Your task to perform on an android device: Empty the shopping cart on amazon. Search for "usb-b" on amazon, select the first entry, and add it to the cart. Image 0: 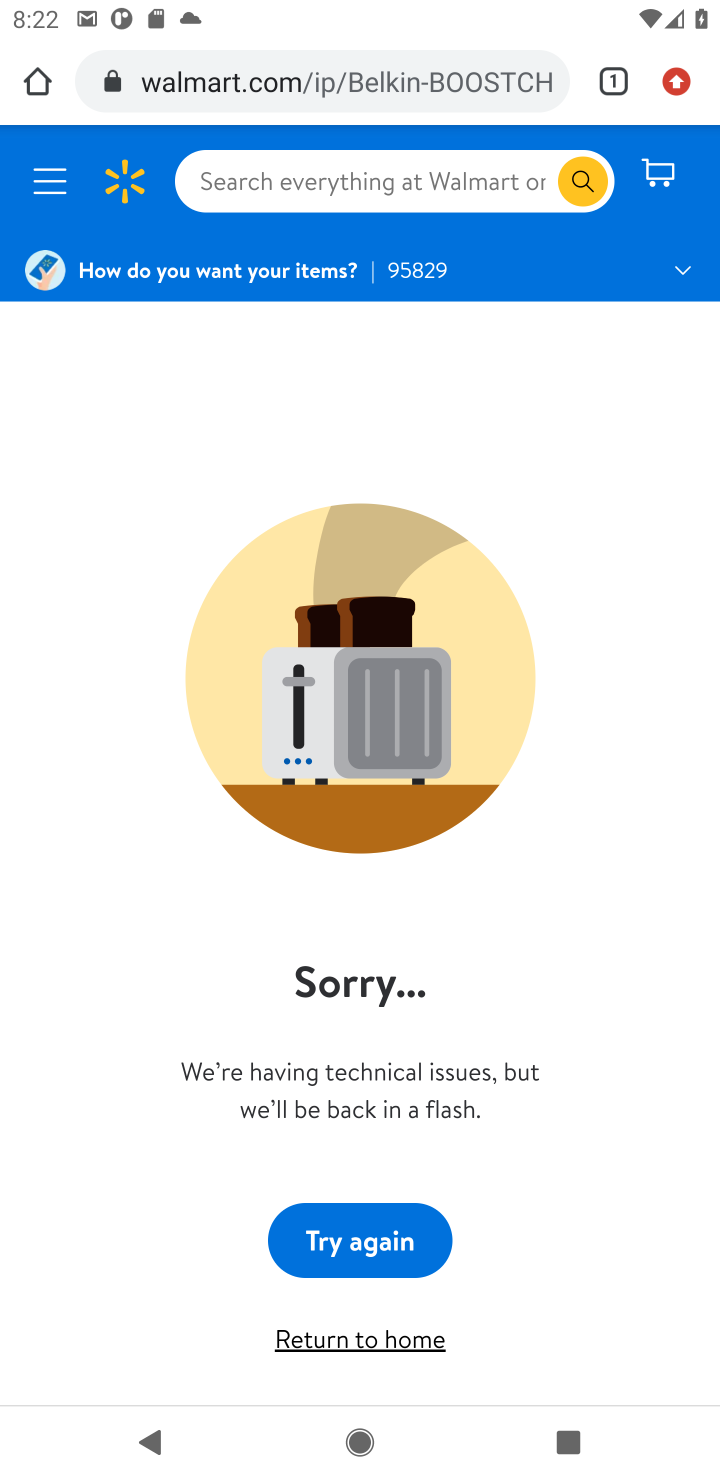
Step 0: click (474, 73)
Your task to perform on an android device: Empty the shopping cart on amazon. Search for "usb-b" on amazon, select the first entry, and add it to the cart. Image 1: 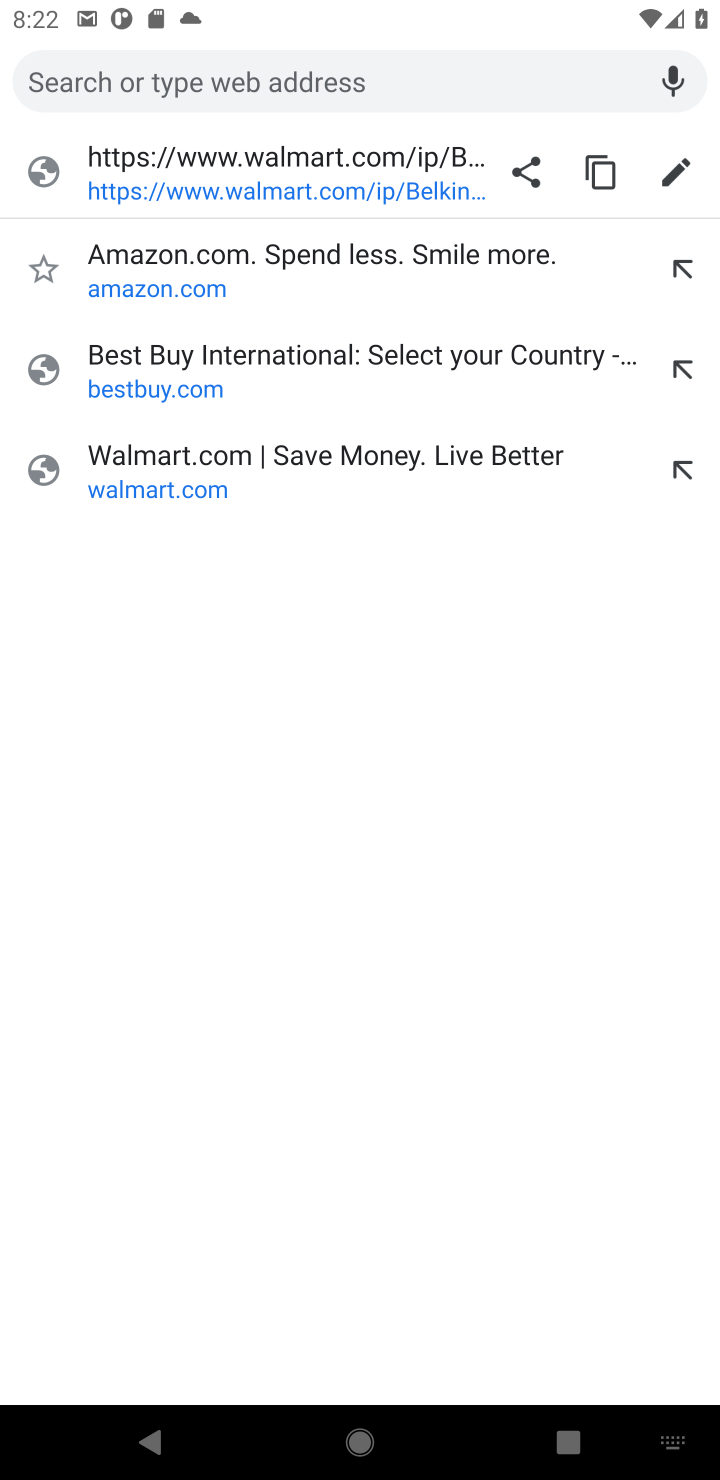
Step 1: type "amazon"
Your task to perform on an android device: Empty the shopping cart on amazon. Search for "usb-b" on amazon, select the first entry, and add it to the cart. Image 2: 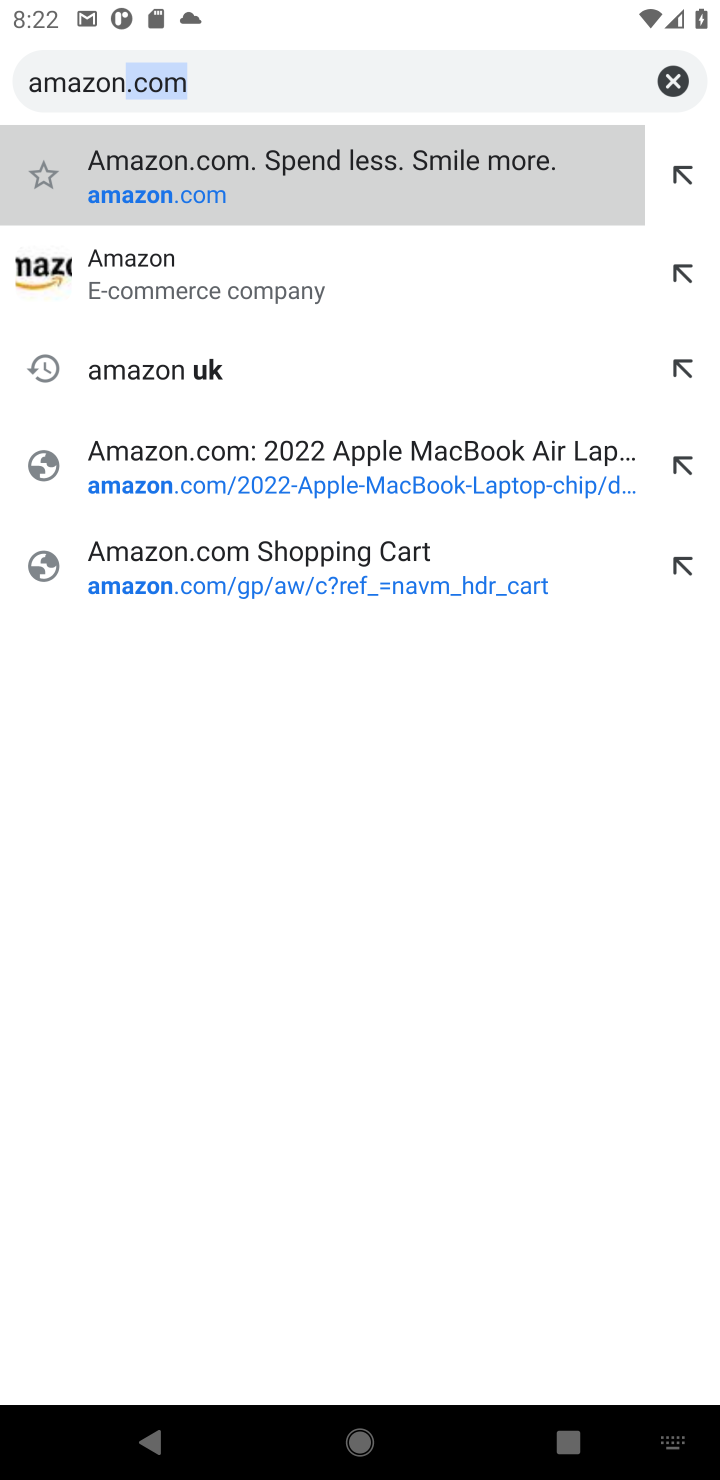
Step 2: click (126, 170)
Your task to perform on an android device: Empty the shopping cart on amazon. Search for "usb-b" on amazon, select the first entry, and add it to the cart. Image 3: 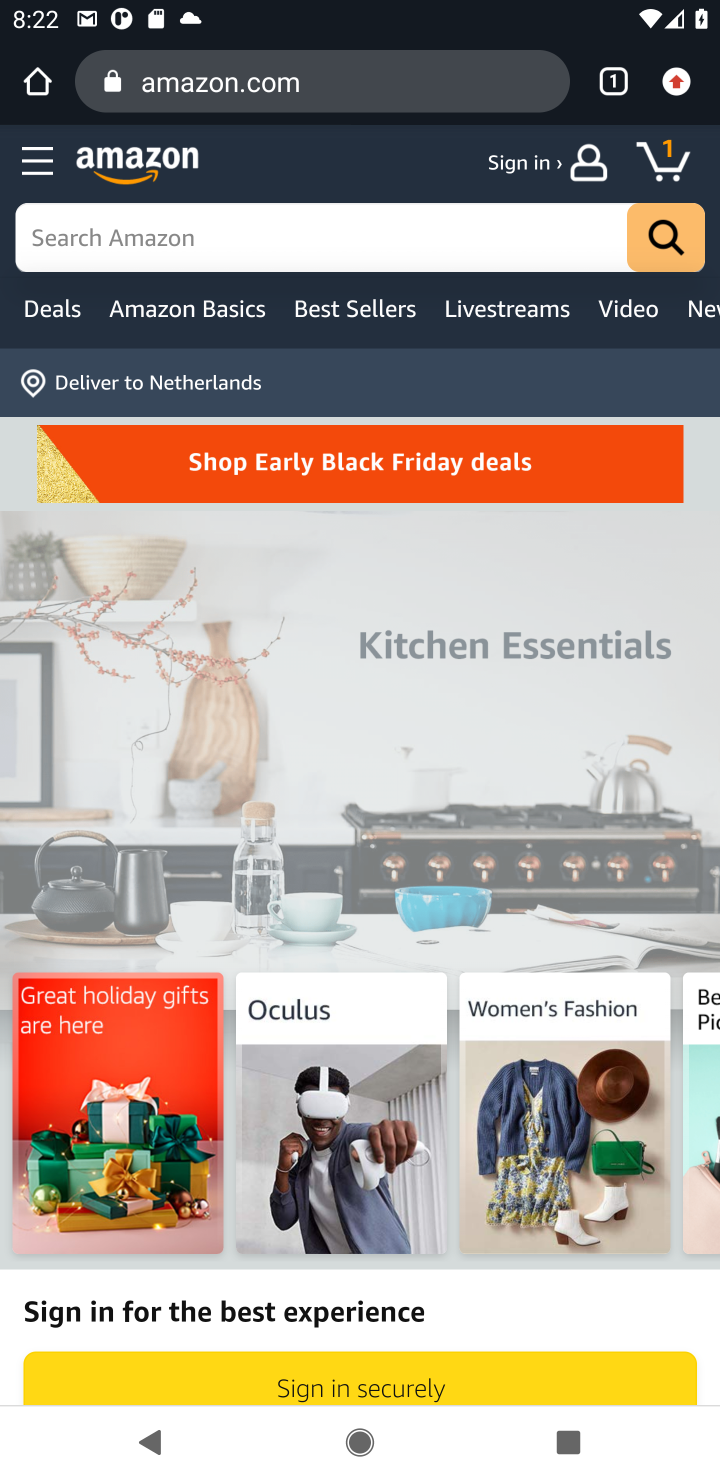
Step 3: click (675, 144)
Your task to perform on an android device: Empty the shopping cart on amazon. Search for "usb-b" on amazon, select the first entry, and add it to the cart. Image 4: 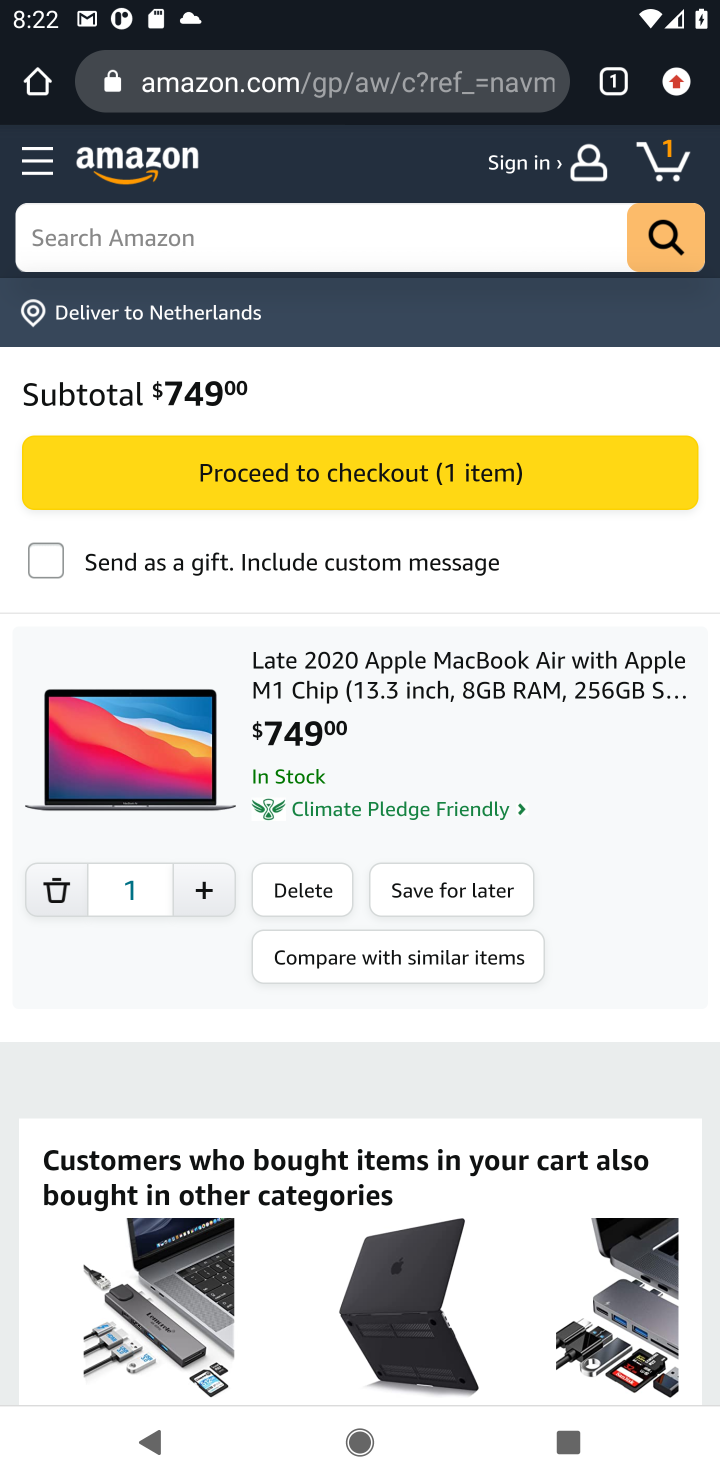
Step 4: click (290, 891)
Your task to perform on an android device: Empty the shopping cart on amazon. Search for "usb-b" on amazon, select the first entry, and add it to the cart. Image 5: 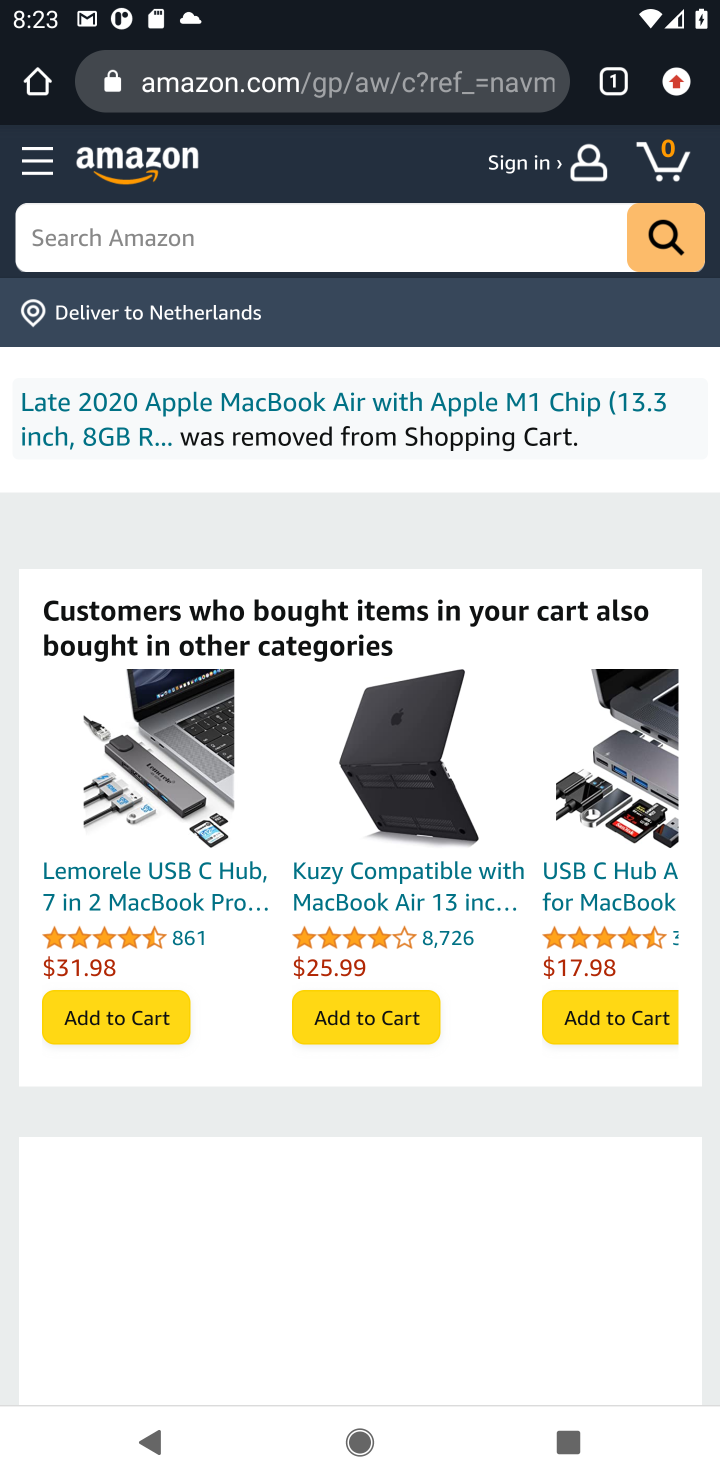
Step 5: click (544, 250)
Your task to perform on an android device: Empty the shopping cart on amazon. Search for "usb-b" on amazon, select the first entry, and add it to the cart. Image 6: 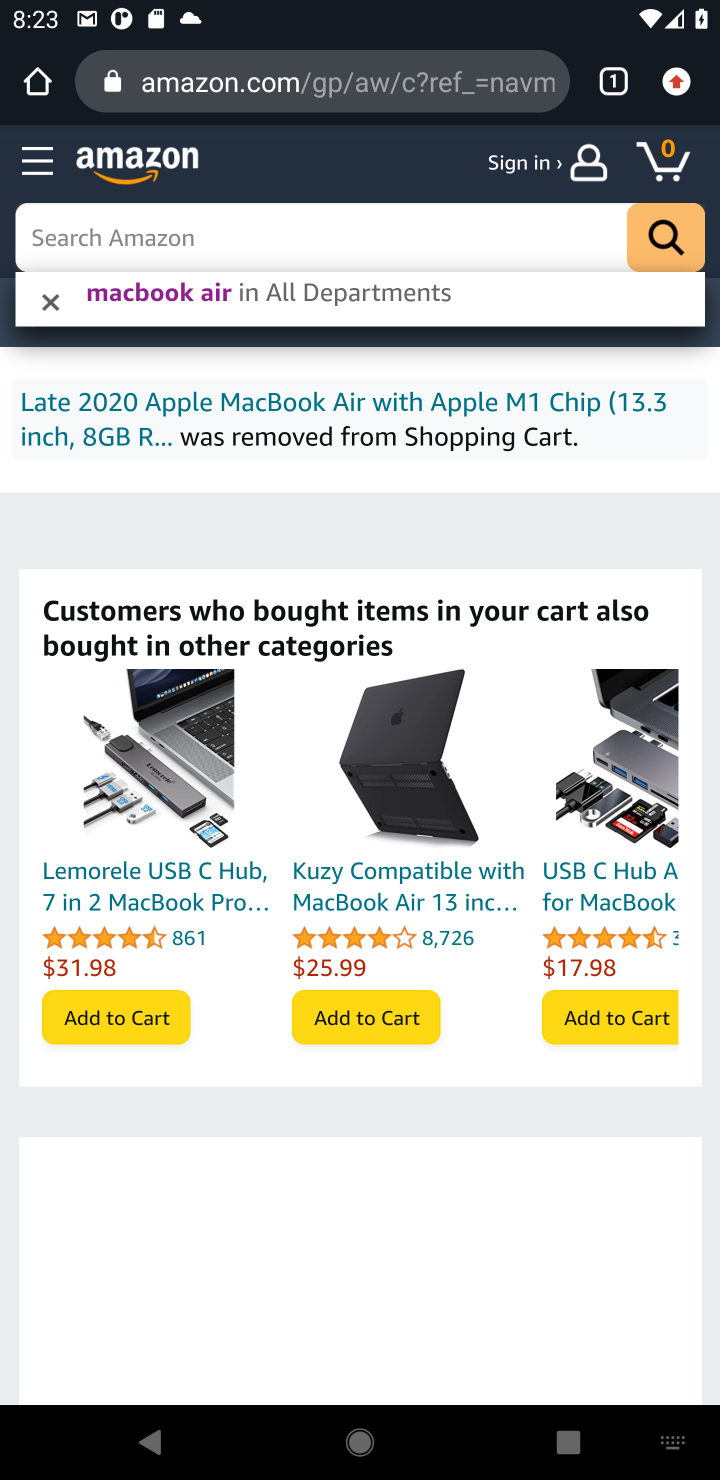
Step 6: type "usb-b"
Your task to perform on an android device: Empty the shopping cart on amazon. Search for "usb-b" on amazon, select the first entry, and add it to the cart. Image 7: 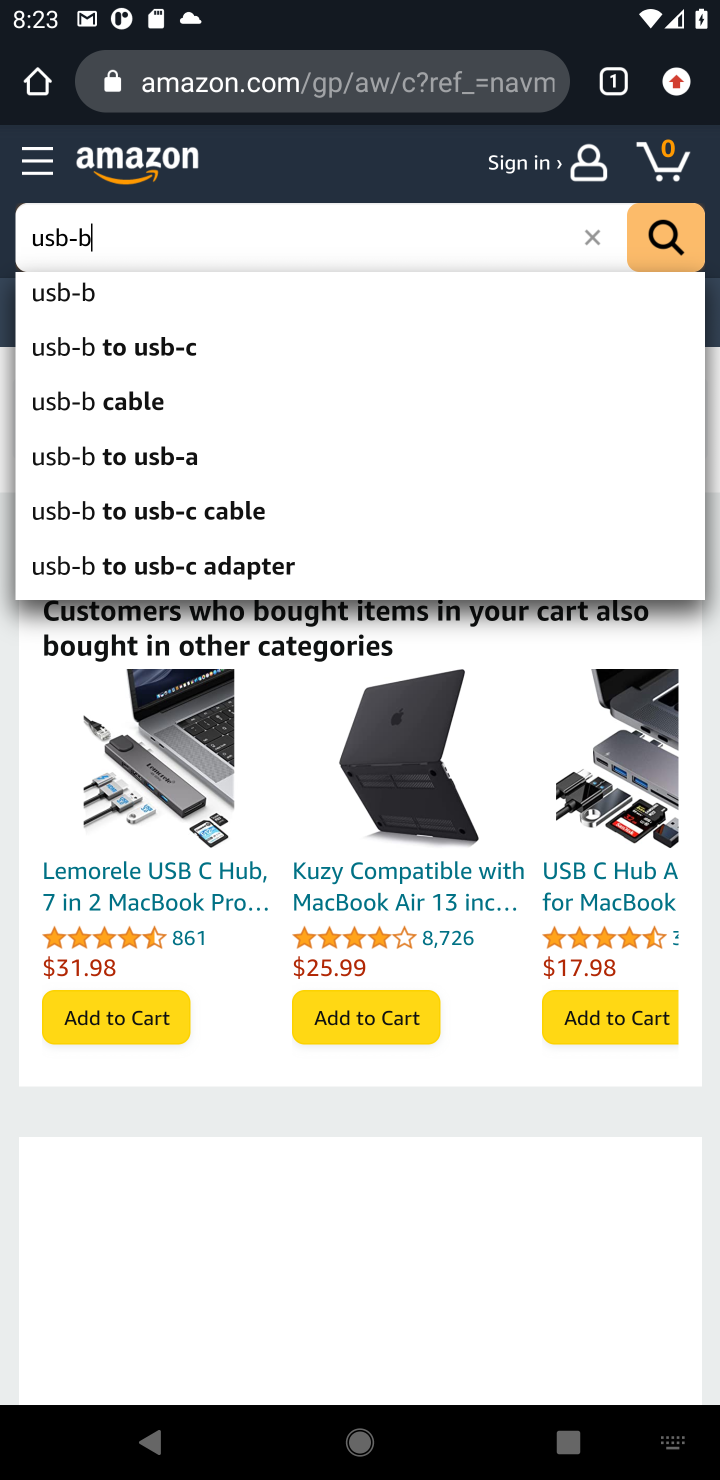
Step 7: click (680, 252)
Your task to perform on an android device: Empty the shopping cart on amazon. Search for "usb-b" on amazon, select the first entry, and add it to the cart. Image 8: 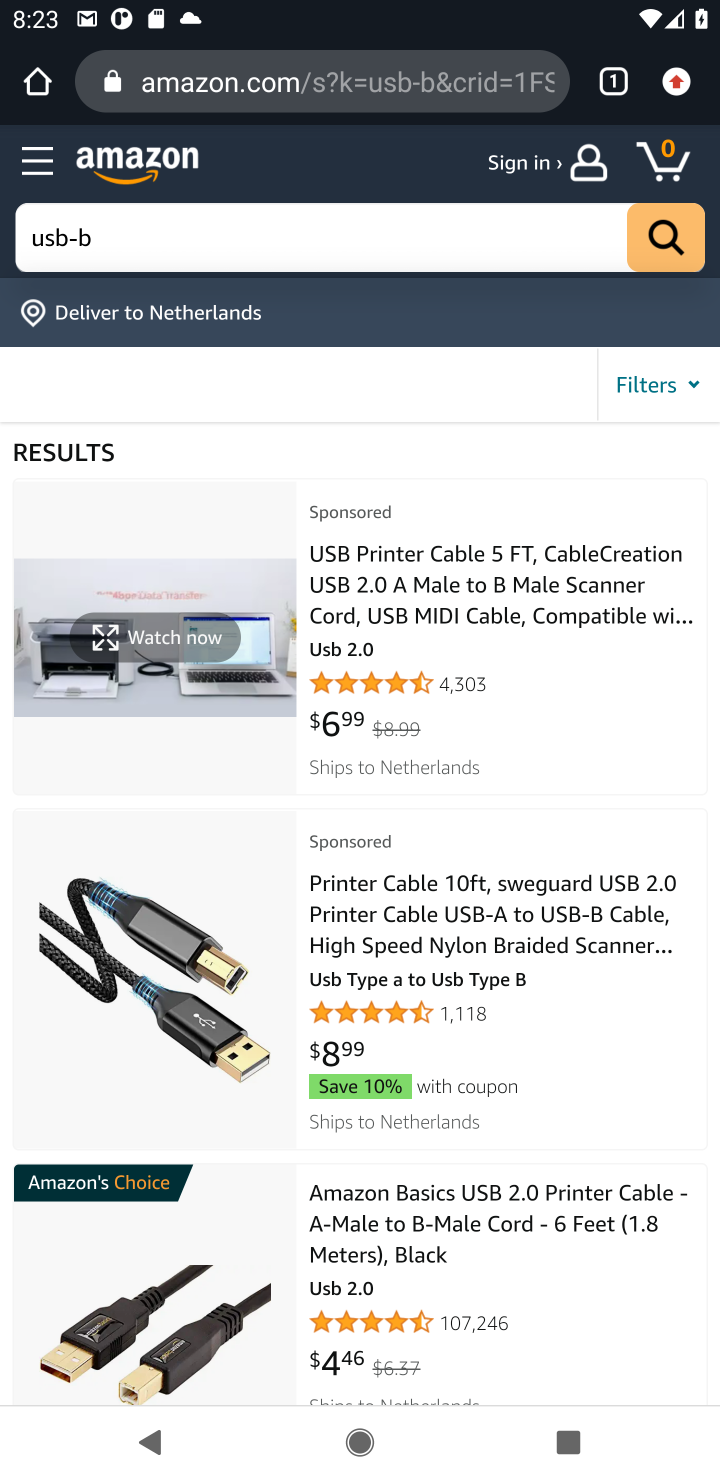
Step 8: click (472, 619)
Your task to perform on an android device: Empty the shopping cart on amazon. Search for "usb-b" on amazon, select the first entry, and add it to the cart. Image 9: 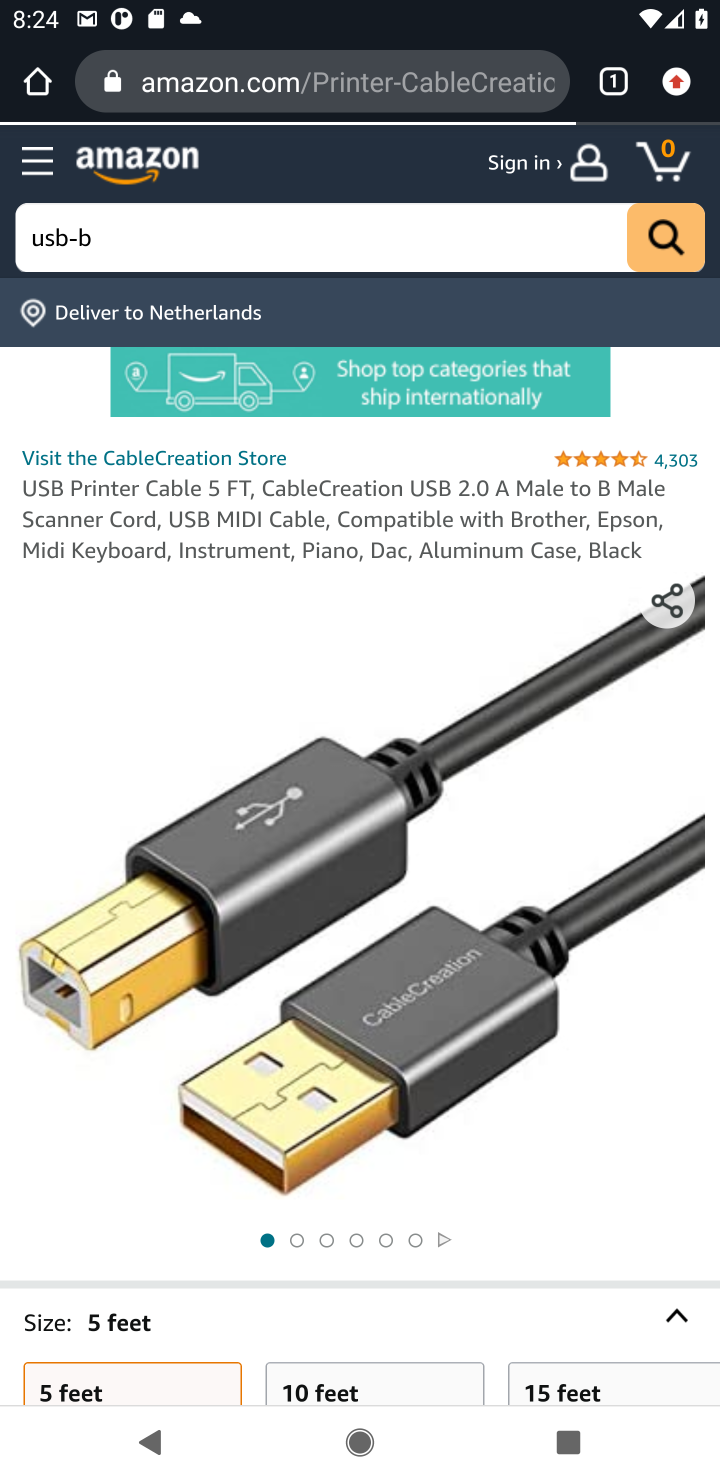
Step 9: drag from (318, 1310) to (385, 419)
Your task to perform on an android device: Empty the shopping cart on amazon. Search for "usb-b" on amazon, select the first entry, and add it to the cart. Image 10: 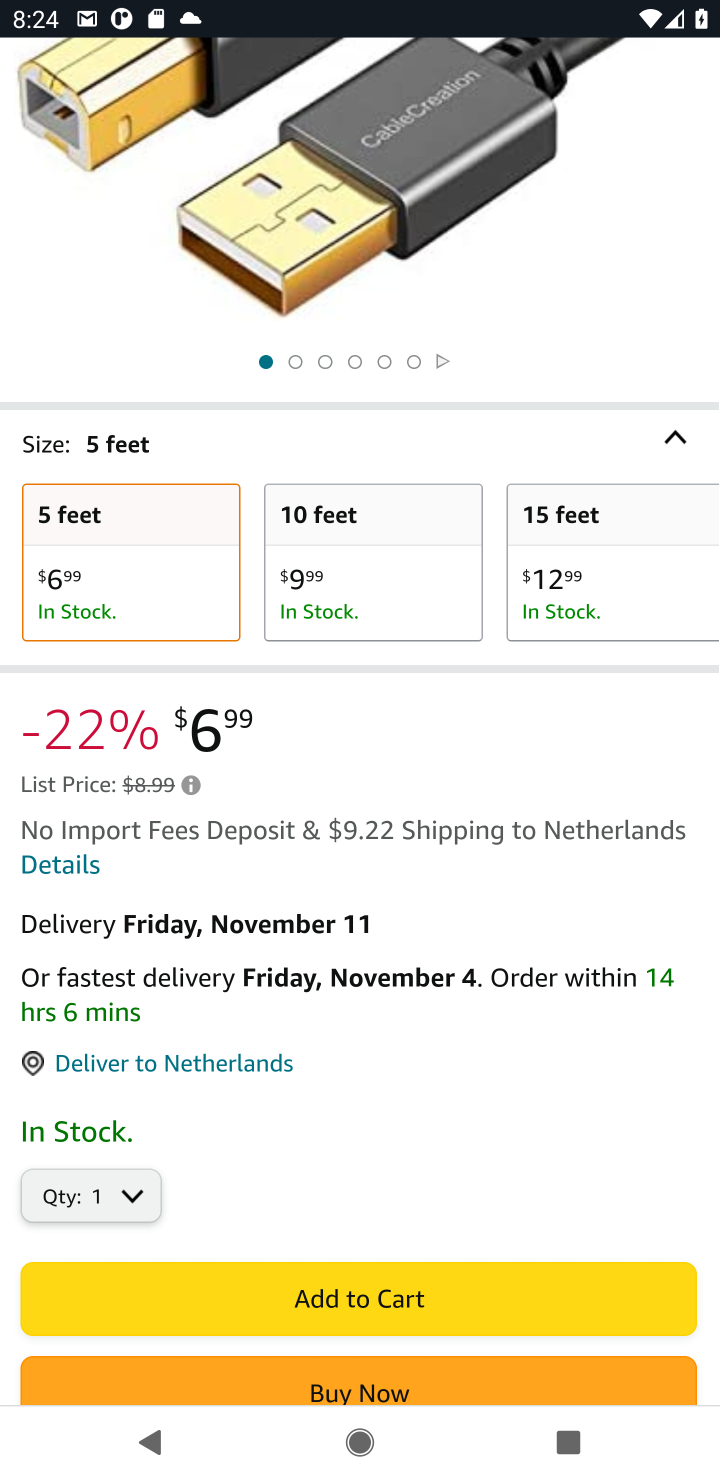
Step 10: click (571, 1293)
Your task to perform on an android device: Empty the shopping cart on amazon. Search for "usb-b" on amazon, select the first entry, and add it to the cart. Image 11: 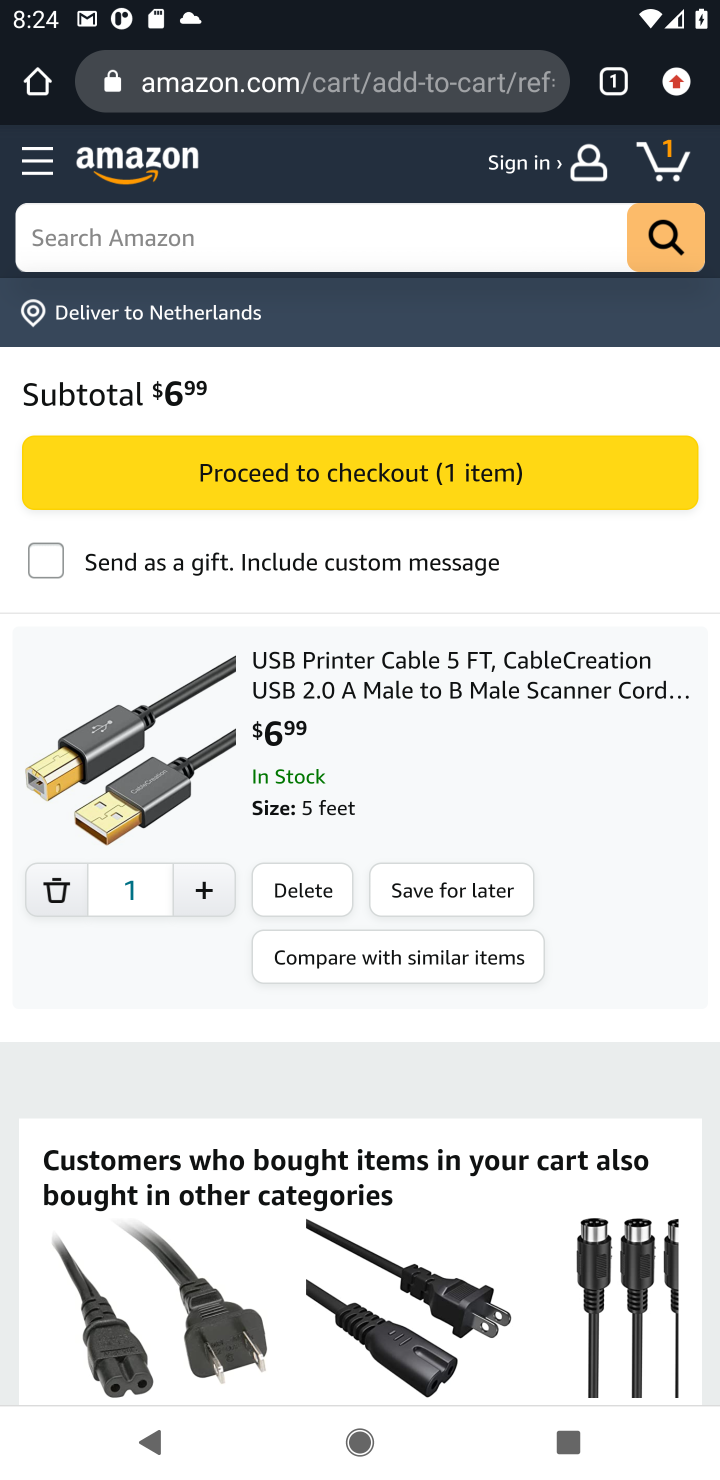
Step 11: task complete